Your task to perform on an android device: Show me popular games on the Play Store Image 0: 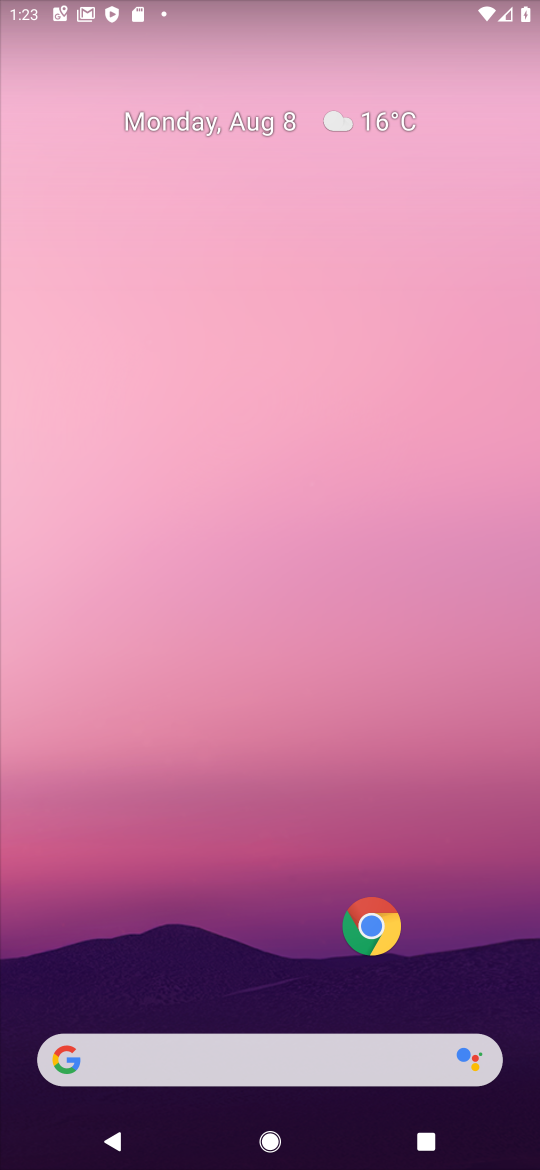
Step 0: drag from (226, 605) to (235, 202)
Your task to perform on an android device: Show me popular games on the Play Store Image 1: 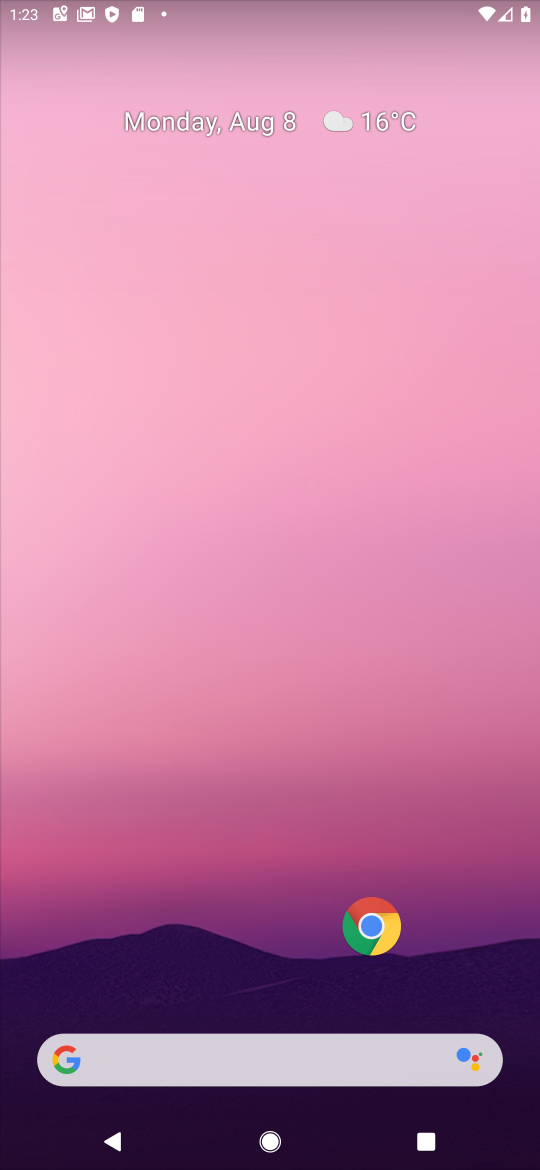
Step 1: drag from (161, 983) to (169, 275)
Your task to perform on an android device: Show me popular games on the Play Store Image 2: 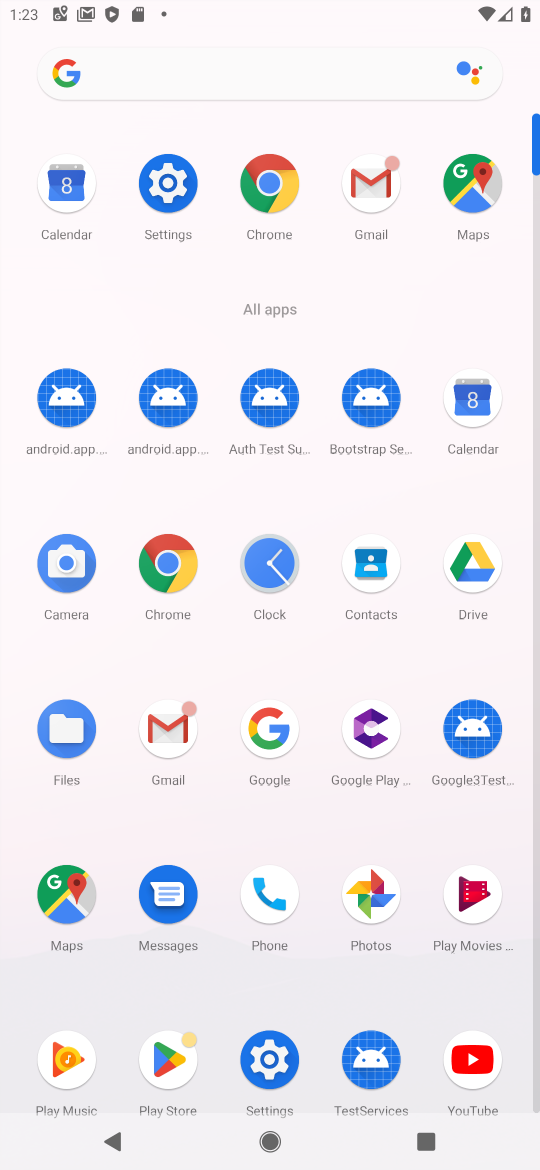
Step 2: click (183, 1042)
Your task to perform on an android device: Show me popular games on the Play Store Image 3: 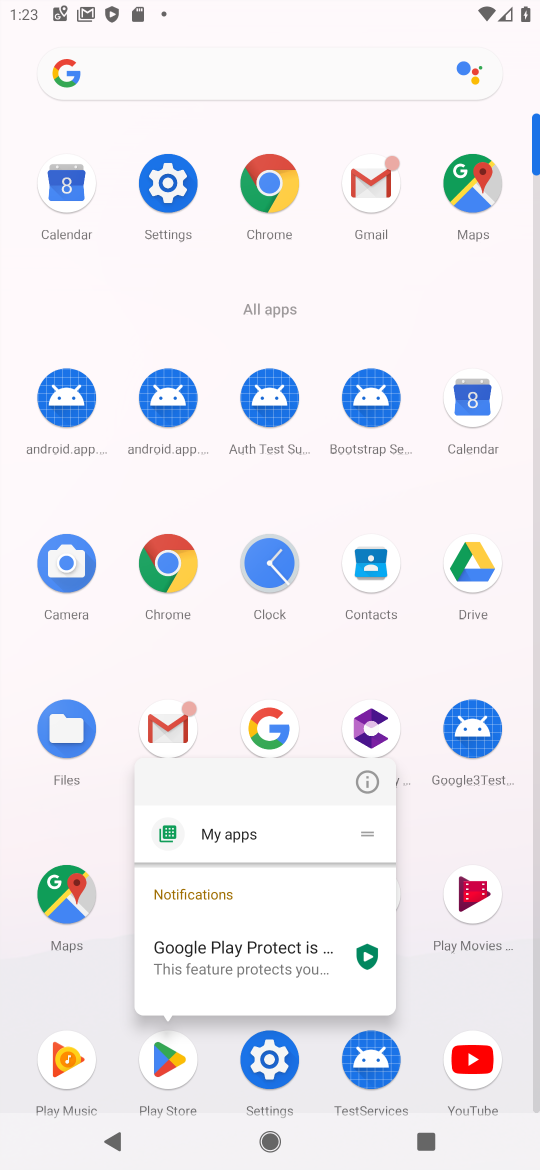
Step 3: click (169, 1053)
Your task to perform on an android device: Show me popular games on the Play Store Image 4: 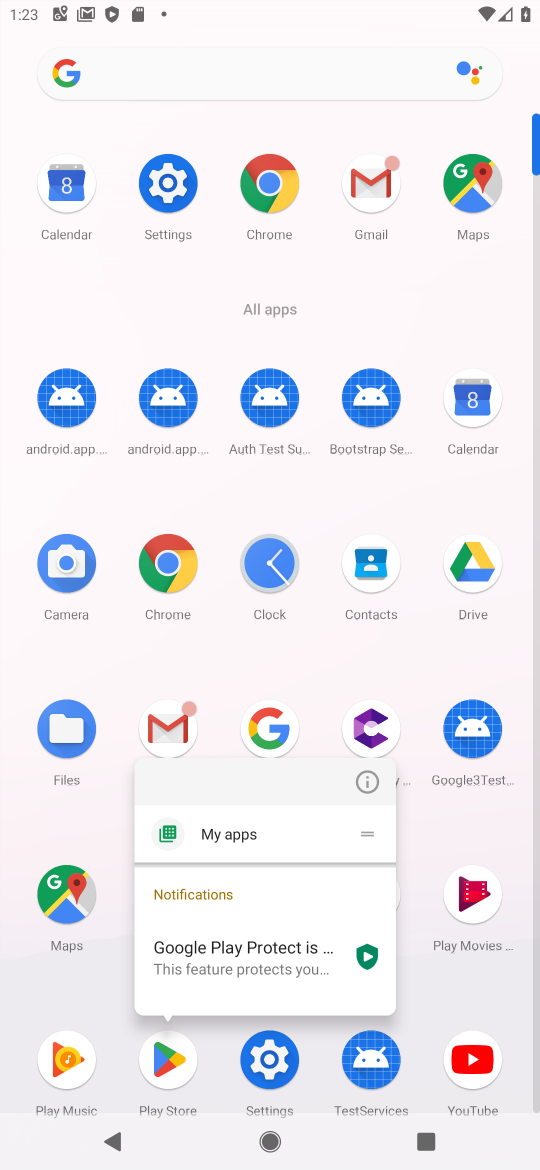
Step 4: click (169, 1053)
Your task to perform on an android device: Show me popular games on the Play Store Image 5: 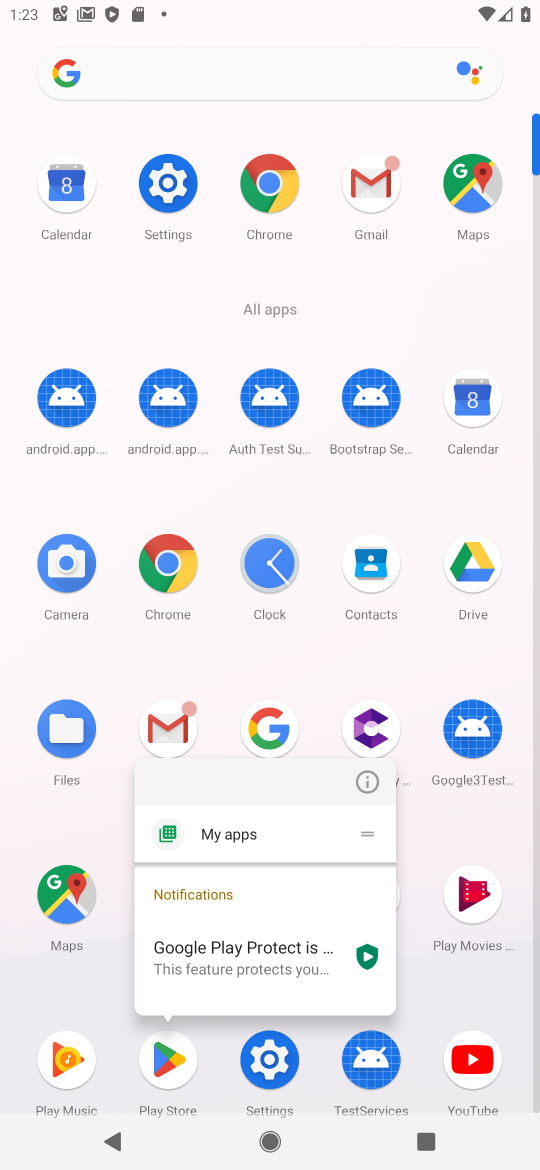
Step 5: click (169, 1053)
Your task to perform on an android device: Show me popular games on the Play Store Image 6: 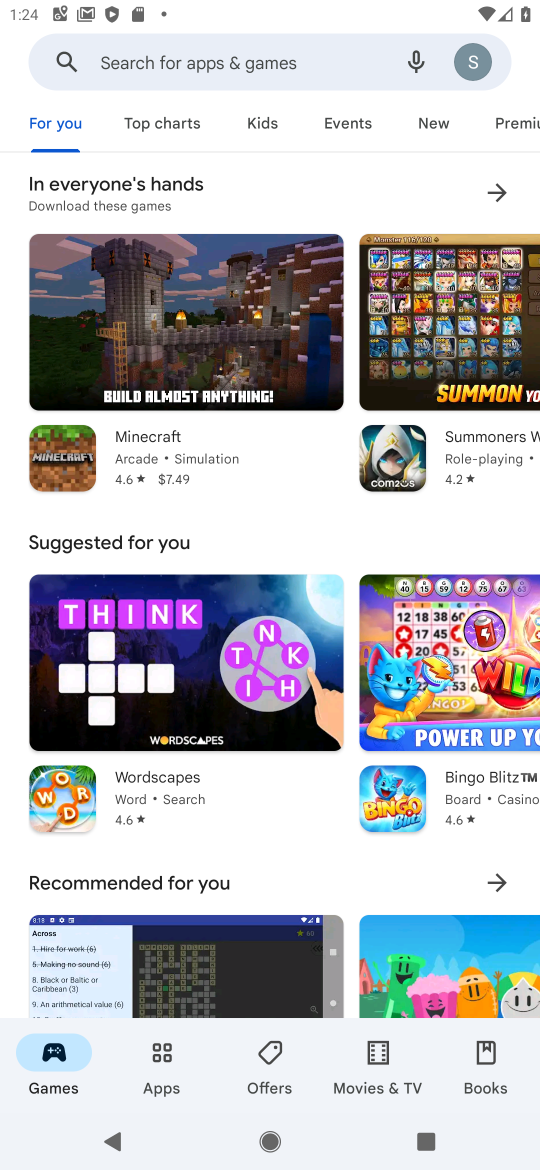
Step 6: task complete